Your task to perform on an android device: Open my contact list Image 0: 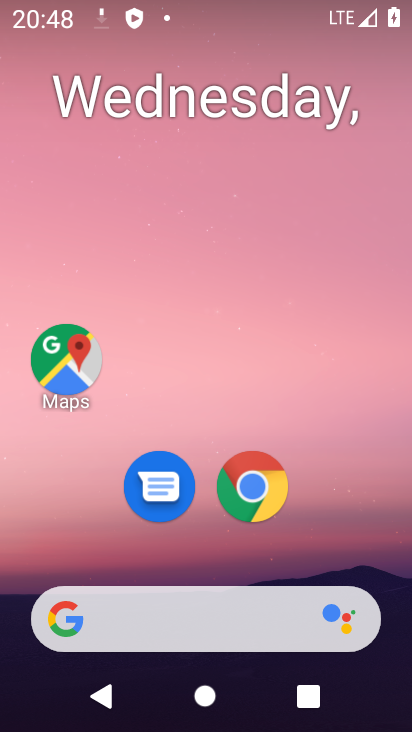
Step 0: drag from (172, 555) to (278, 64)
Your task to perform on an android device: Open my contact list Image 1: 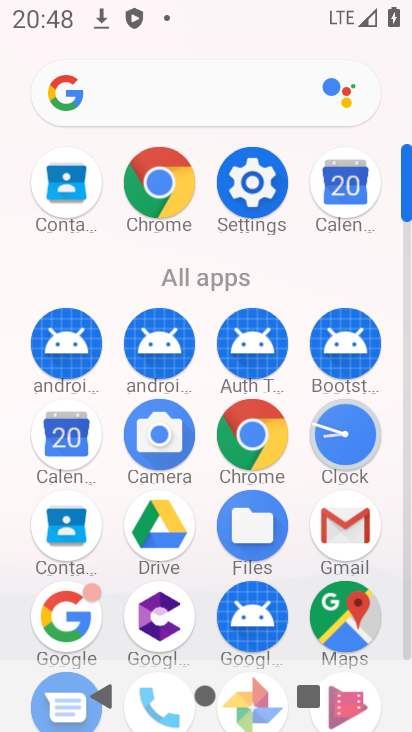
Step 1: click (50, 527)
Your task to perform on an android device: Open my contact list Image 2: 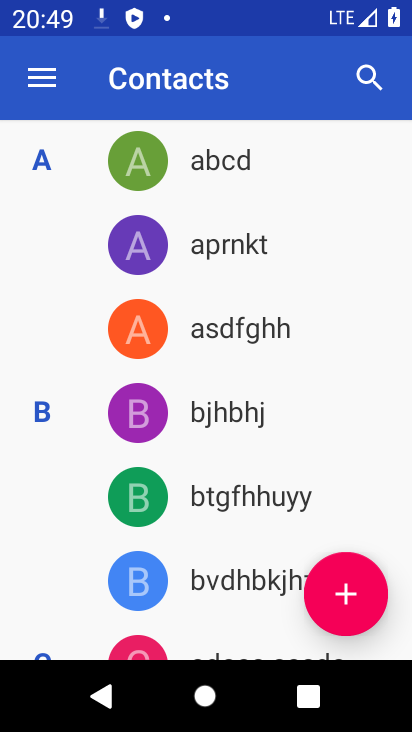
Step 2: task complete